Your task to perform on an android device: choose inbox layout in the gmail app Image 0: 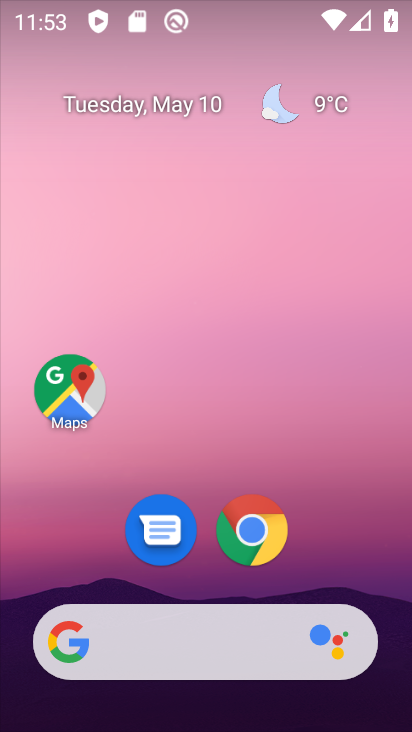
Step 0: drag from (366, 554) to (243, 98)
Your task to perform on an android device: choose inbox layout in the gmail app Image 1: 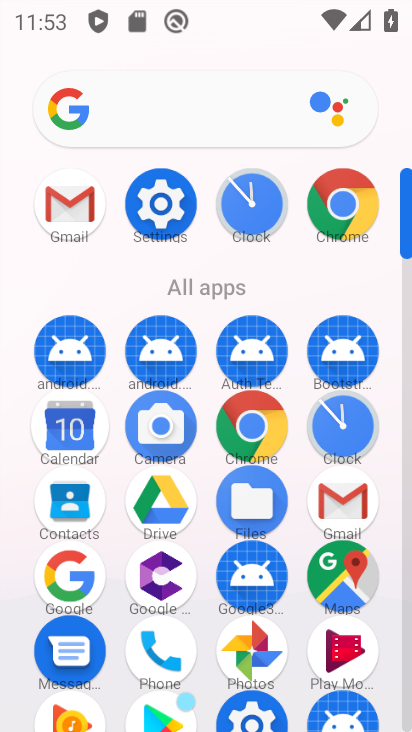
Step 1: click (69, 213)
Your task to perform on an android device: choose inbox layout in the gmail app Image 2: 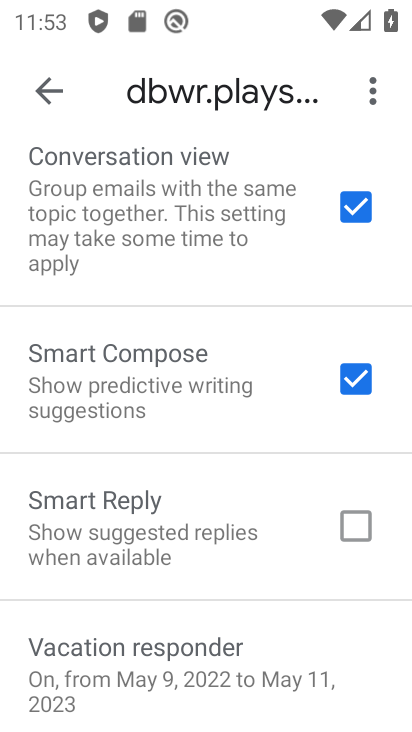
Step 2: drag from (124, 253) to (266, 691)
Your task to perform on an android device: choose inbox layout in the gmail app Image 3: 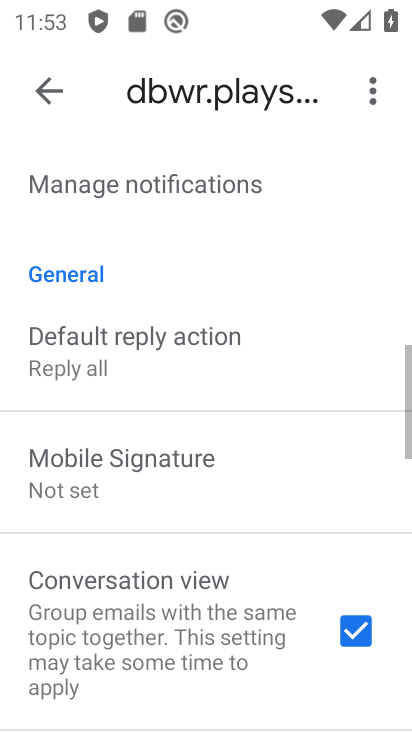
Step 3: drag from (231, 275) to (237, 593)
Your task to perform on an android device: choose inbox layout in the gmail app Image 4: 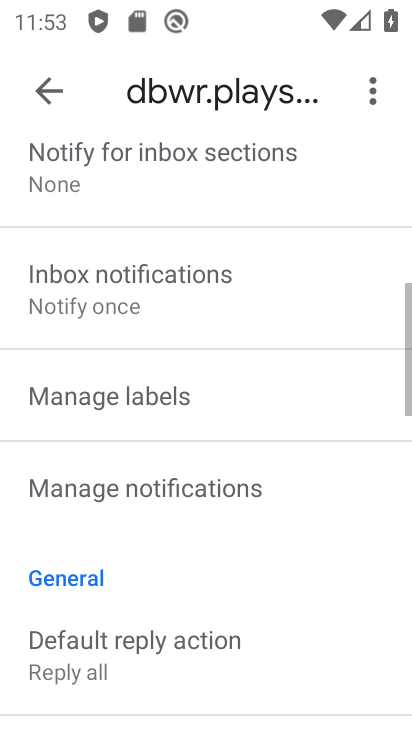
Step 4: drag from (227, 132) to (229, 590)
Your task to perform on an android device: choose inbox layout in the gmail app Image 5: 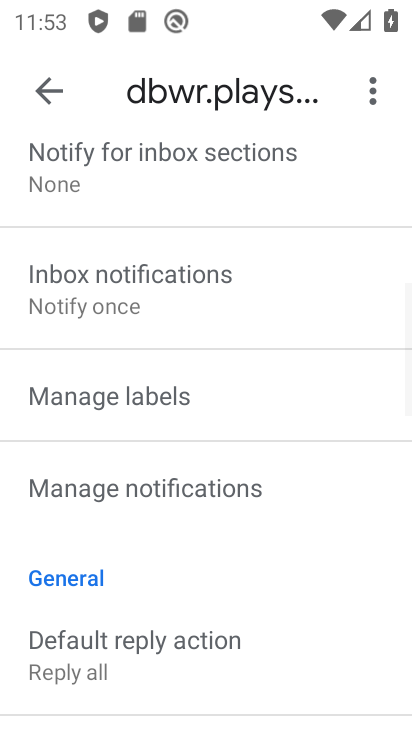
Step 5: drag from (190, 332) to (192, 556)
Your task to perform on an android device: choose inbox layout in the gmail app Image 6: 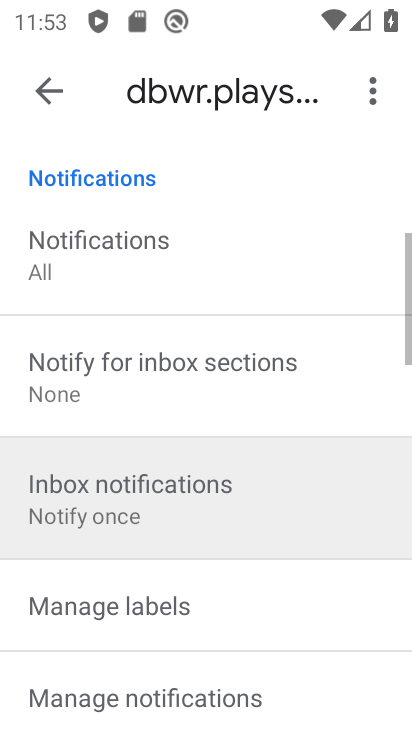
Step 6: drag from (255, 328) to (254, 586)
Your task to perform on an android device: choose inbox layout in the gmail app Image 7: 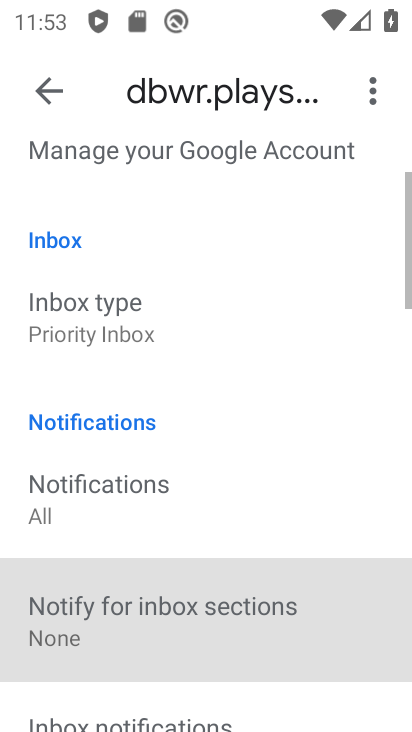
Step 7: drag from (203, 344) to (230, 676)
Your task to perform on an android device: choose inbox layout in the gmail app Image 8: 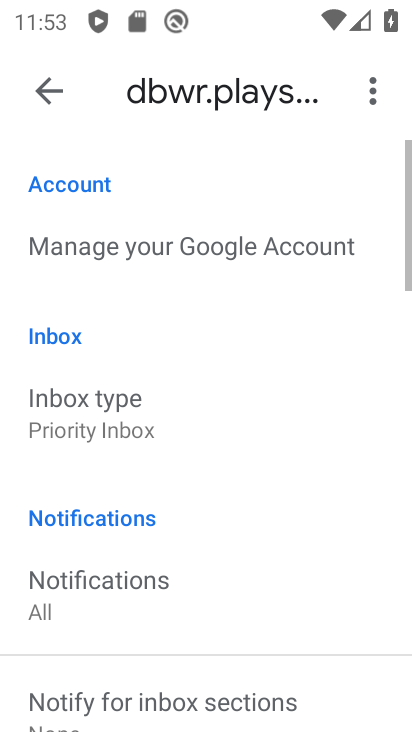
Step 8: drag from (214, 313) to (215, 610)
Your task to perform on an android device: choose inbox layout in the gmail app Image 9: 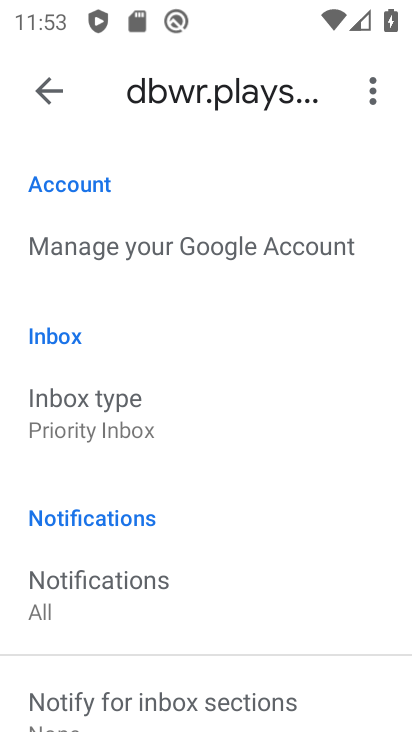
Step 9: click (148, 431)
Your task to perform on an android device: choose inbox layout in the gmail app Image 10: 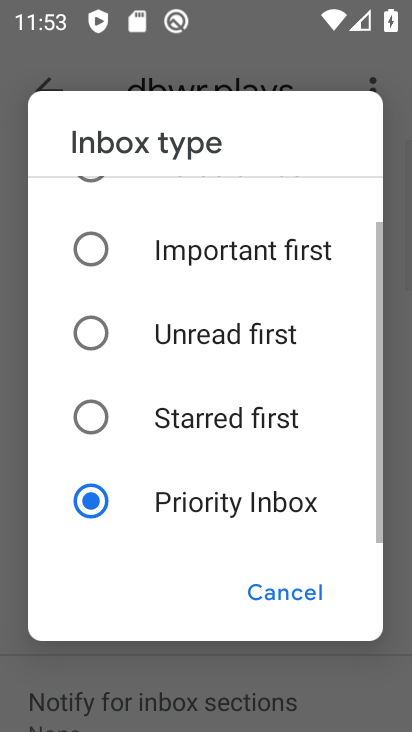
Step 10: click (167, 431)
Your task to perform on an android device: choose inbox layout in the gmail app Image 11: 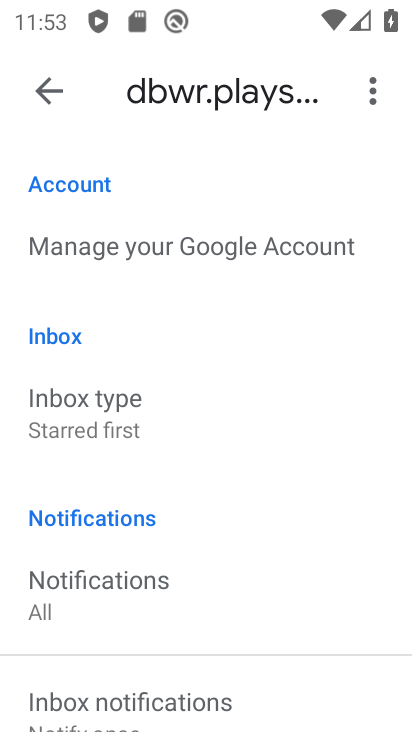
Step 11: task complete